Your task to perform on an android device: turn off javascript in the chrome app Image 0: 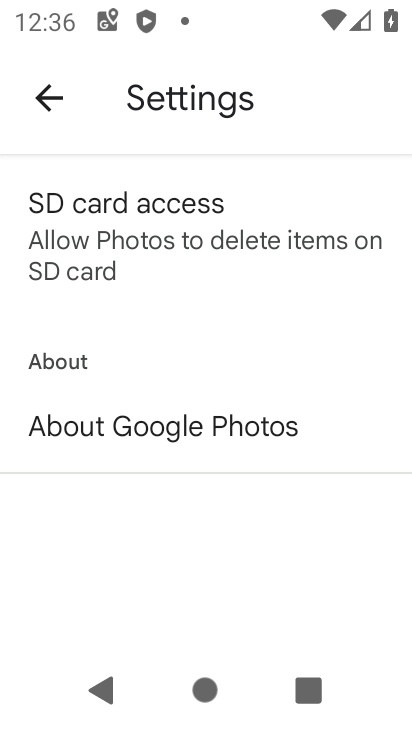
Step 0: press home button
Your task to perform on an android device: turn off javascript in the chrome app Image 1: 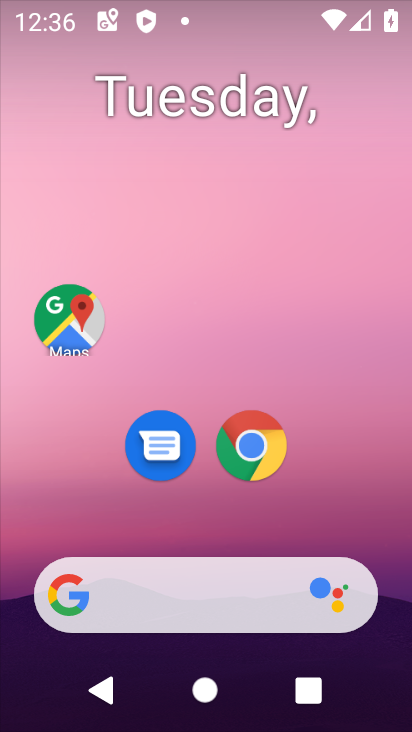
Step 1: drag from (357, 463) to (327, 0)
Your task to perform on an android device: turn off javascript in the chrome app Image 2: 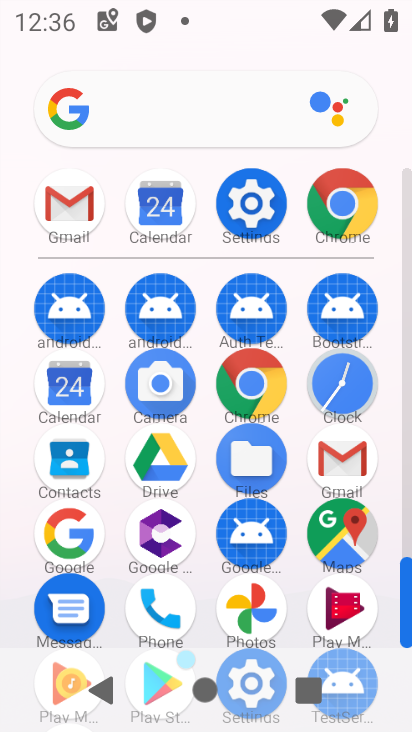
Step 2: click (332, 232)
Your task to perform on an android device: turn off javascript in the chrome app Image 3: 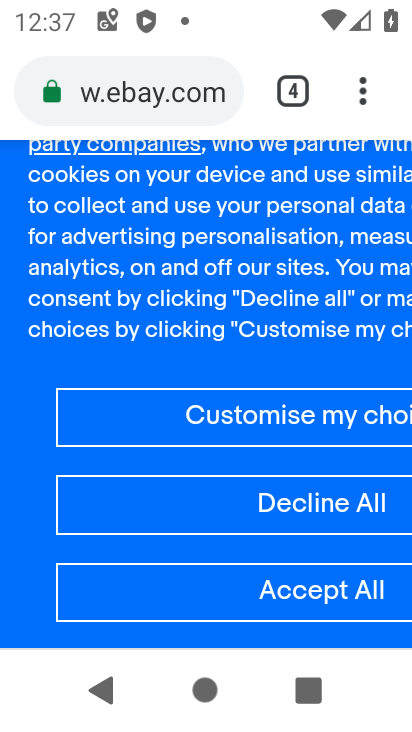
Step 3: drag from (362, 100) to (141, 483)
Your task to perform on an android device: turn off javascript in the chrome app Image 4: 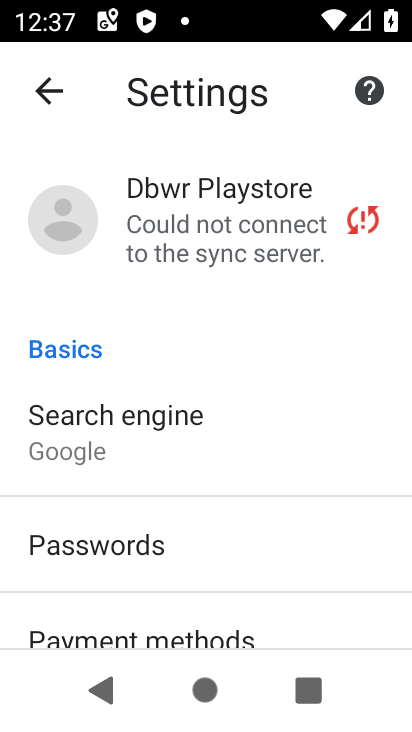
Step 4: drag from (130, 589) to (177, 249)
Your task to perform on an android device: turn off javascript in the chrome app Image 5: 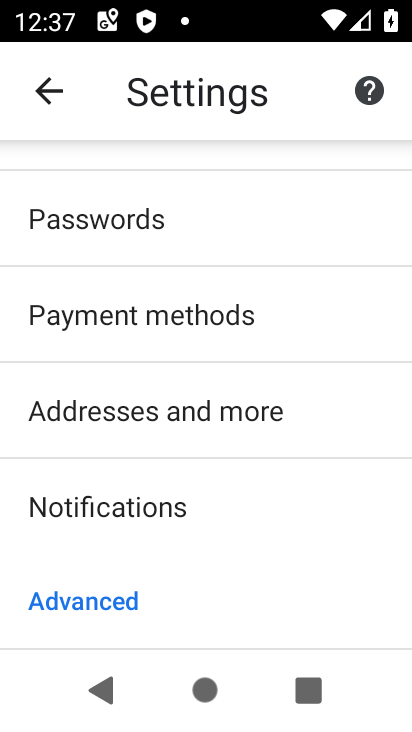
Step 5: drag from (173, 634) to (155, 217)
Your task to perform on an android device: turn off javascript in the chrome app Image 6: 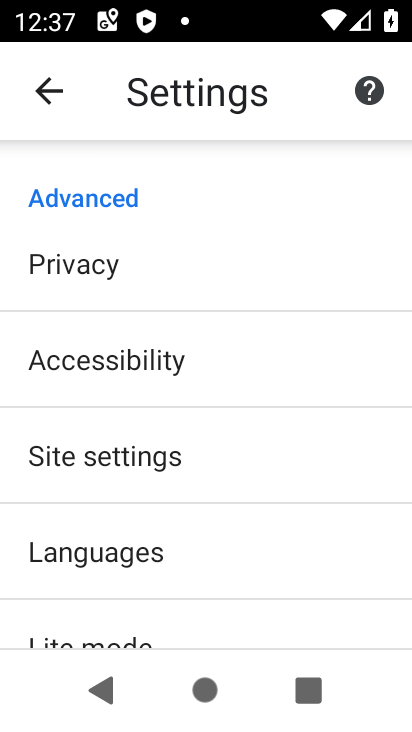
Step 6: click (144, 471)
Your task to perform on an android device: turn off javascript in the chrome app Image 7: 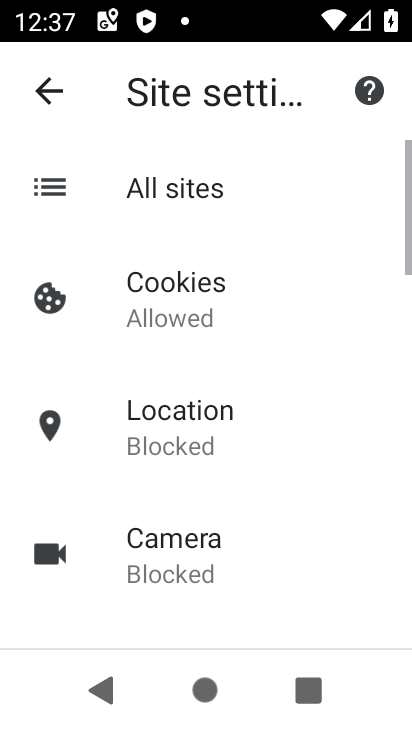
Step 7: drag from (170, 546) to (169, 178)
Your task to perform on an android device: turn off javascript in the chrome app Image 8: 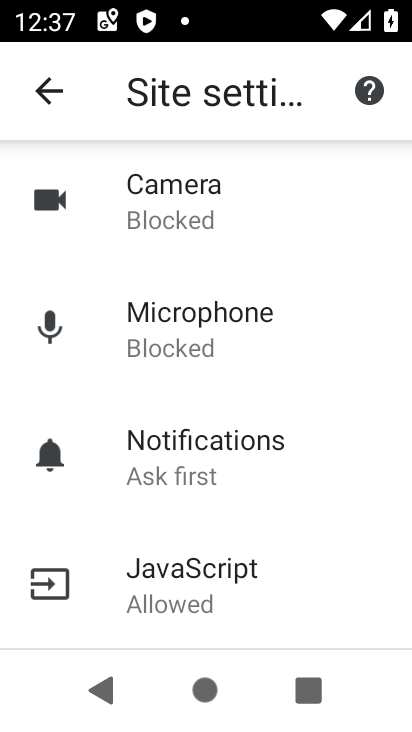
Step 8: drag from (160, 596) to (198, 227)
Your task to perform on an android device: turn off javascript in the chrome app Image 9: 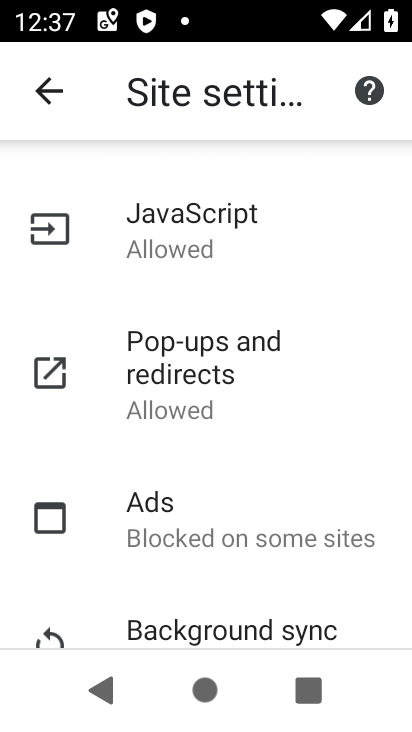
Step 9: click (172, 237)
Your task to perform on an android device: turn off javascript in the chrome app Image 10: 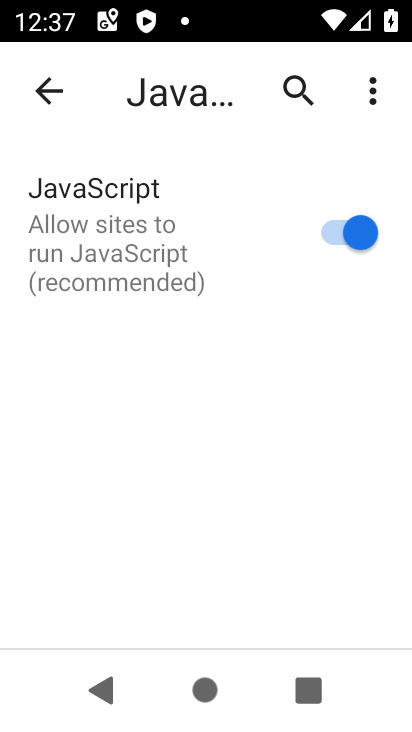
Step 10: click (339, 241)
Your task to perform on an android device: turn off javascript in the chrome app Image 11: 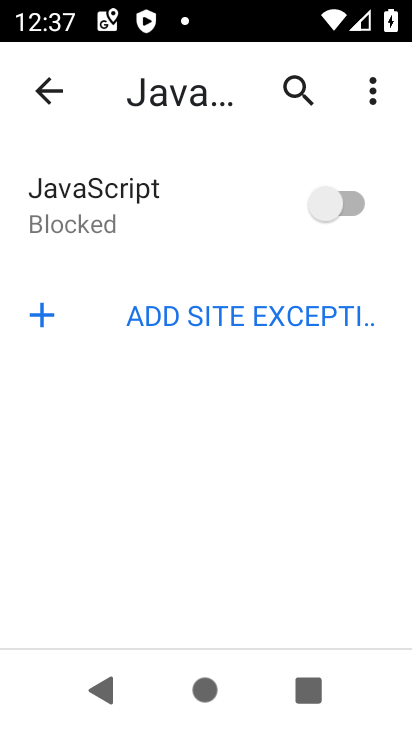
Step 11: task complete